Your task to perform on an android device: set the stopwatch Image 0: 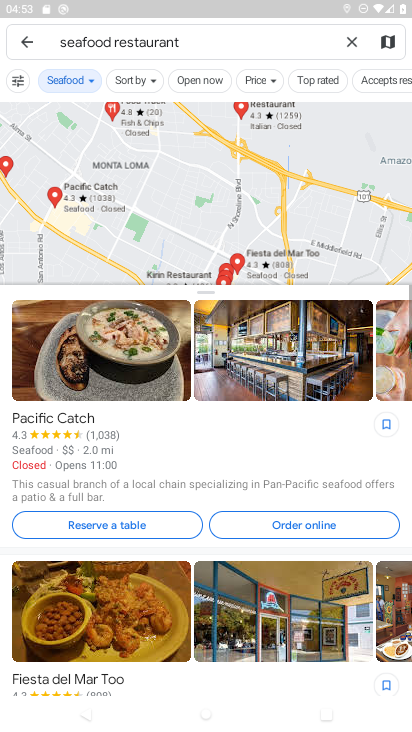
Step 0: drag from (214, 491) to (220, 286)
Your task to perform on an android device: set the stopwatch Image 1: 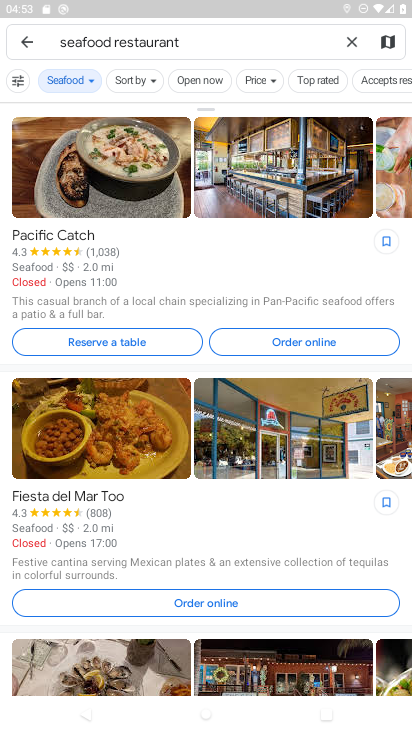
Step 1: press home button
Your task to perform on an android device: set the stopwatch Image 2: 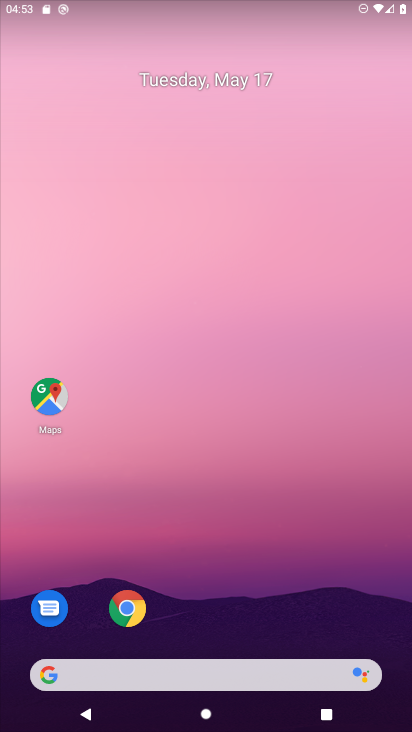
Step 2: drag from (215, 660) to (226, 348)
Your task to perform on an android device: set the stopwatch Image 3: 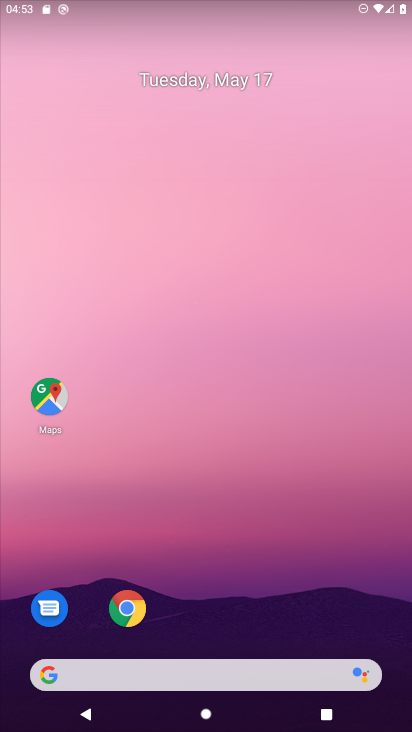
Step 3: drag from (233, 655) to (202, 326)
Your task to perform on an android device: set the stopwatch Image 4: 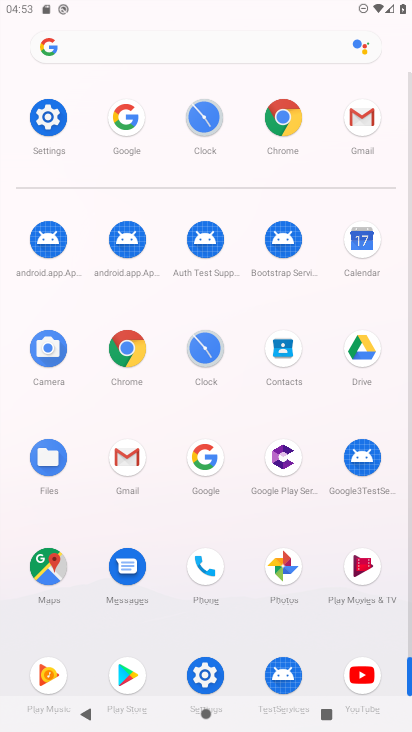
Step 4: click (198, 126)
Your task to perform on an android device: set the stopwatch Image 5: 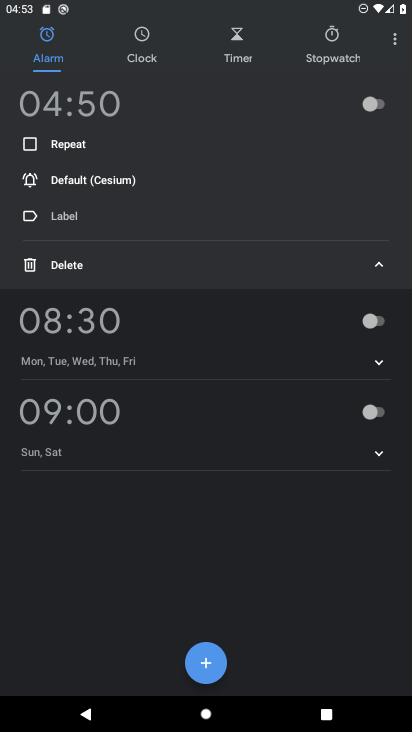
Step 5: click (311, 56)
Your task to perform on an android device: set the stopwatch Image 6: 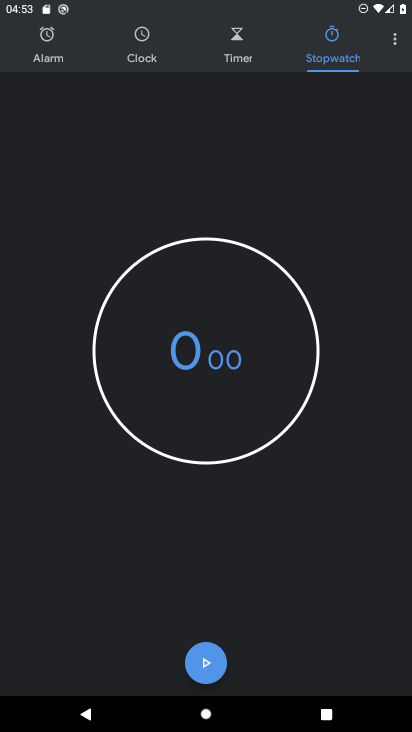
Step 6: click (206, 660)
Your task to perform on an android device: set the stopwatch Image 7: 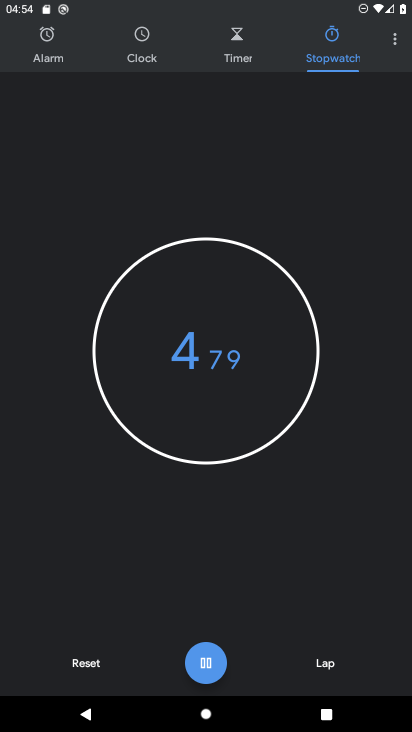
Step 7: click (206, 660)
Your task to perform on an android device: set the stopwatch Image 8: 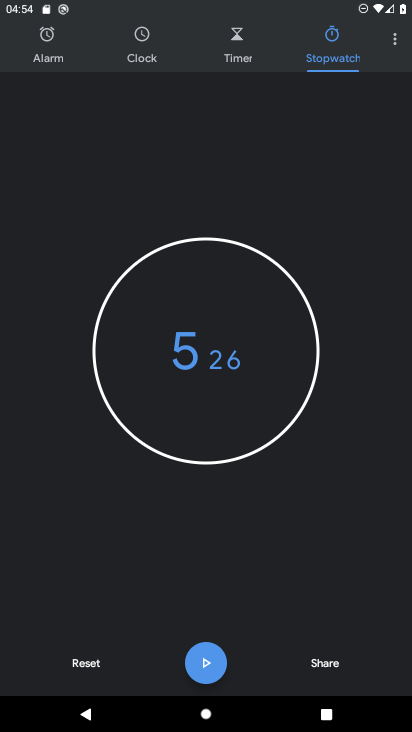
Step 8: task complete